Your task to perform on an android device: visit the assistant section in the google photos Image 0: 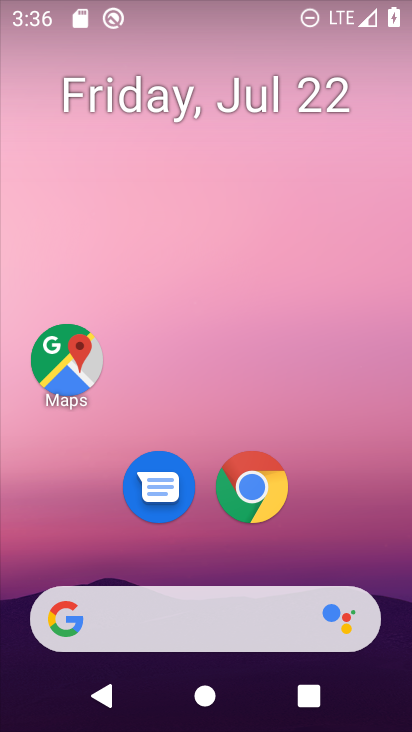
Step 0: drag from (172, 553) to (236, 100)
Your task to perform on an android device: visit the assistant section in the google photos Image 1: 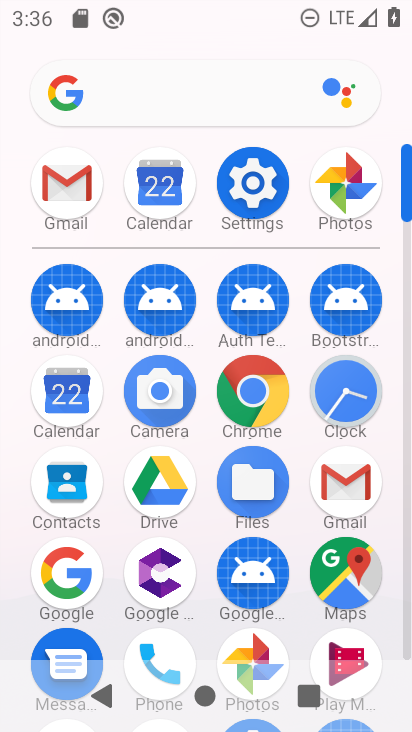
Step 1: click (257, 652)
Your task to perform on an android device: visit the assistant section in the google photos Image 2: 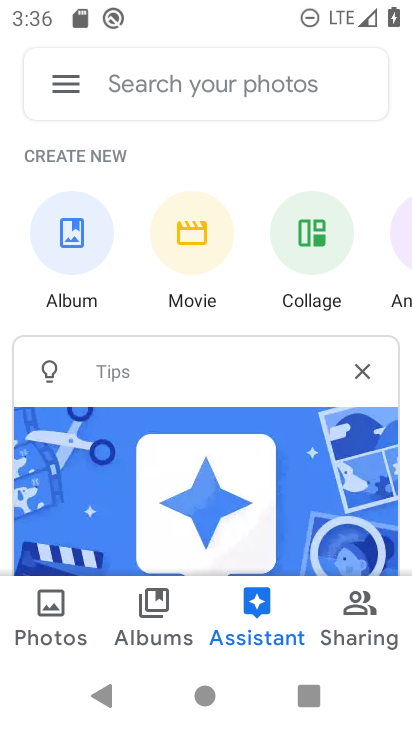
Step 2: click (268, 614)
Your task to perform on an android device: visit the assistant section in the google photos Image 3: 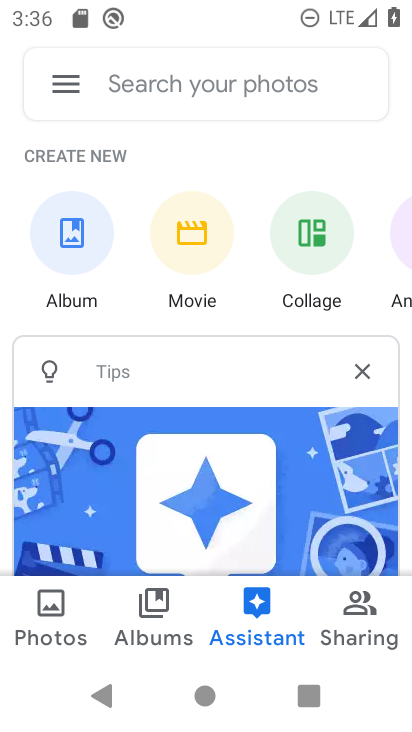
Step 3: task complete